Your task to perform on an android device: Open Wikipedia Image 0: 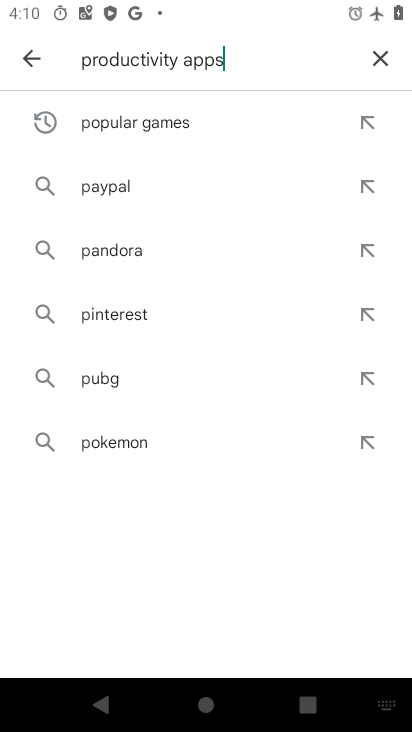
Step 0: press home button
Your task to perform on an android device: Open Wikipedia Image 1: 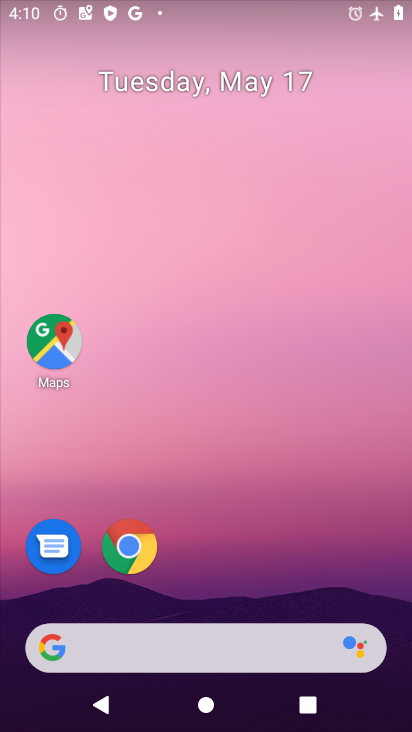
Step 1: click (117, 547)
Your task to perform on an android device: Open Wikipedia Image 2: 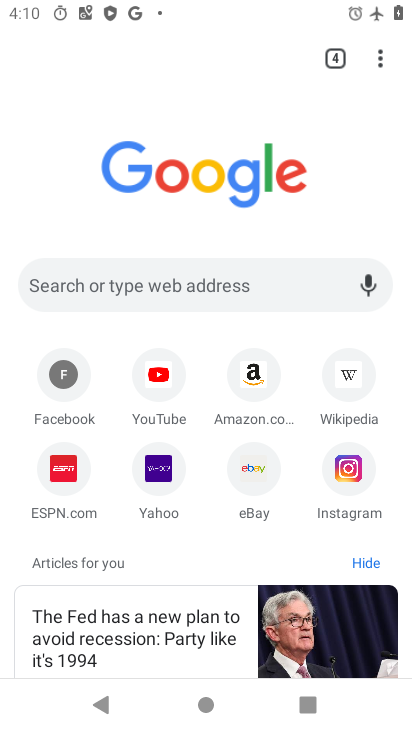
Step 2: click (228, 277)
Your task to perform on an android device: Open Wikipedia Image 3: 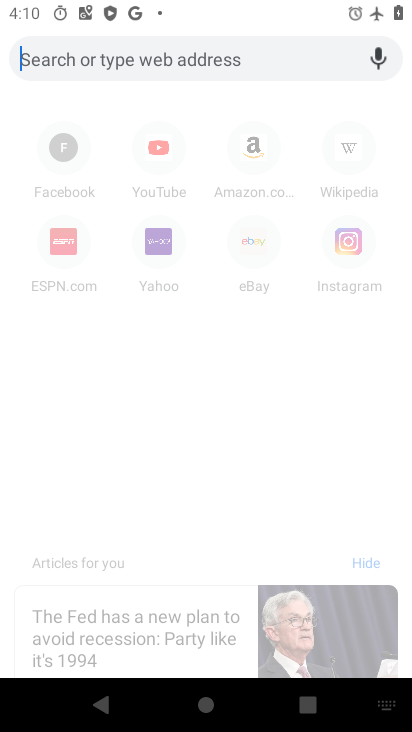
Step 3: type "Wikipedia"
Your task to perform on an android device: Open Wikipedia Image 4: 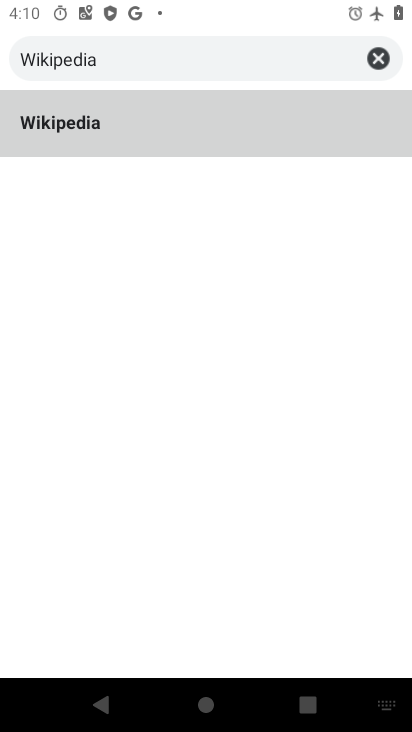
Step 4: click (35, 121)
Your task to perform on an android device: Open Wikipedia Image 5: 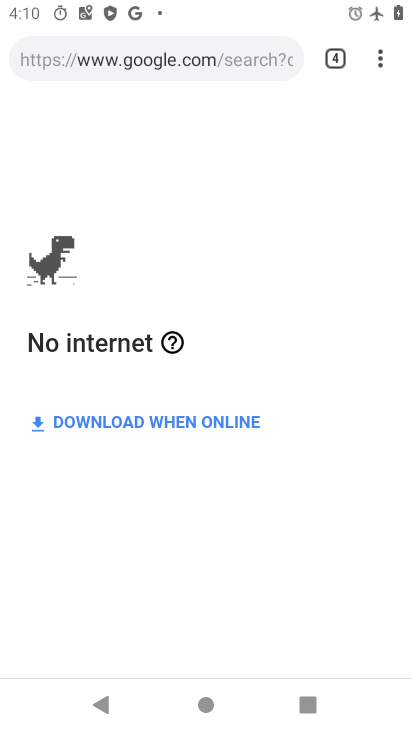
Step 5: task complete